Your task to perform on an android device: open app "Mercado Libre" Image 0: 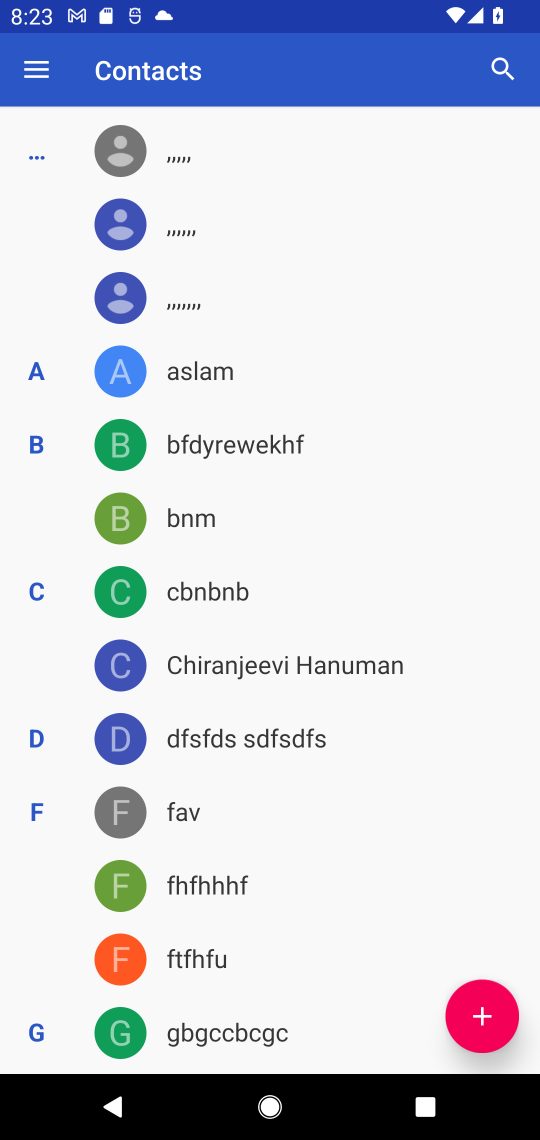
Step 0: press home button
Your task to perform on an android device: open app "Mercado Libre" Image 1: 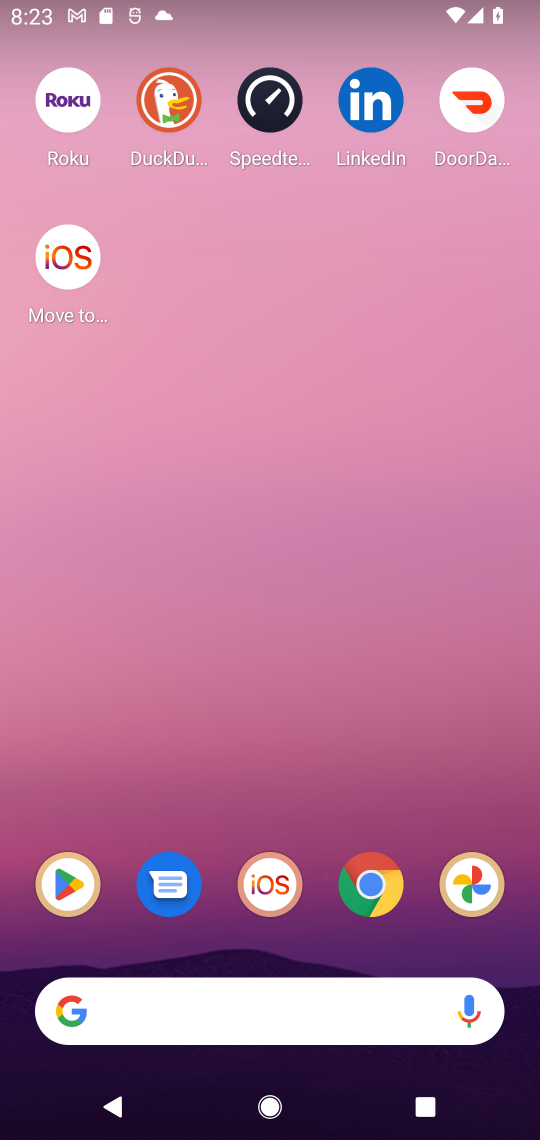
Step 1: click (68, 873)
Your task to perform on an android device: open app "Mercado Libre" Image 2: 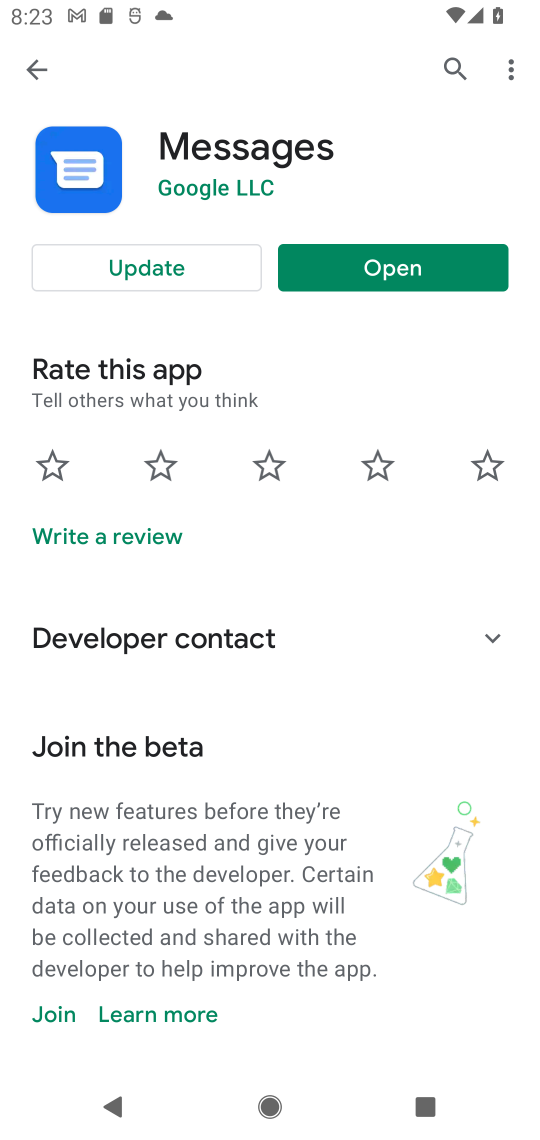
Step 2: click (505, 64)
Your task to perform on an android device: open app "Mercado Libre" Image 3: 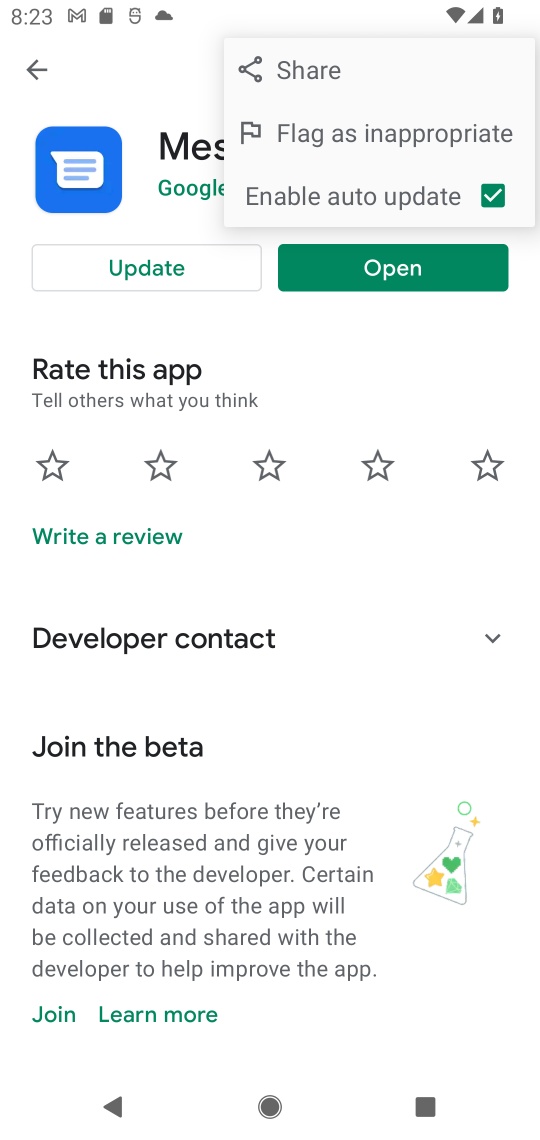
Step 3: click (37, 71)
Your task to perform on an android device: open app "Mercado Libre" Image 4: 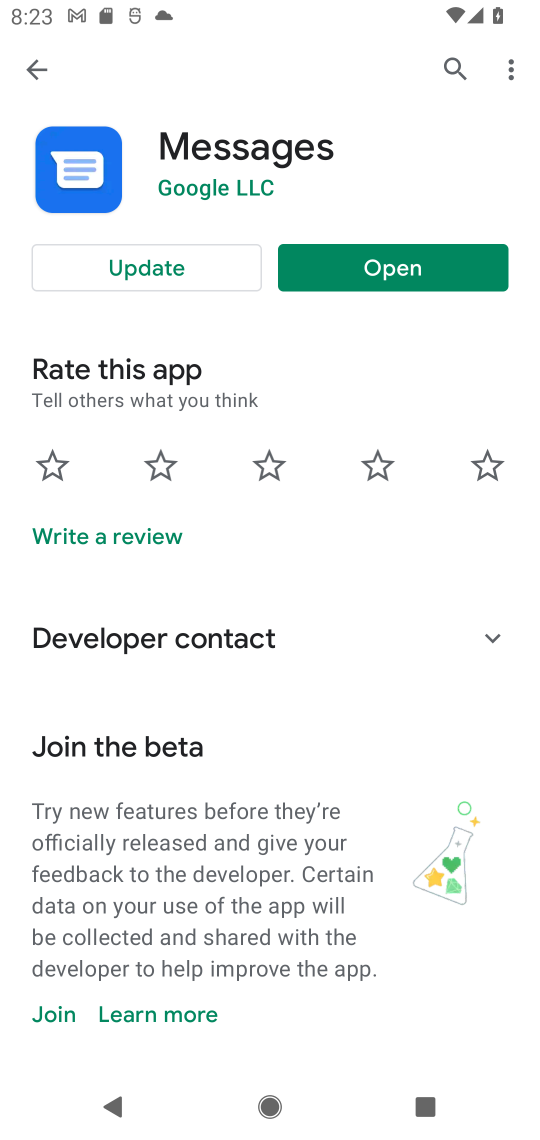
Step 4: click (459, 66)
Your task to perform on an android device: open app "Mercado Libre" Image 5: 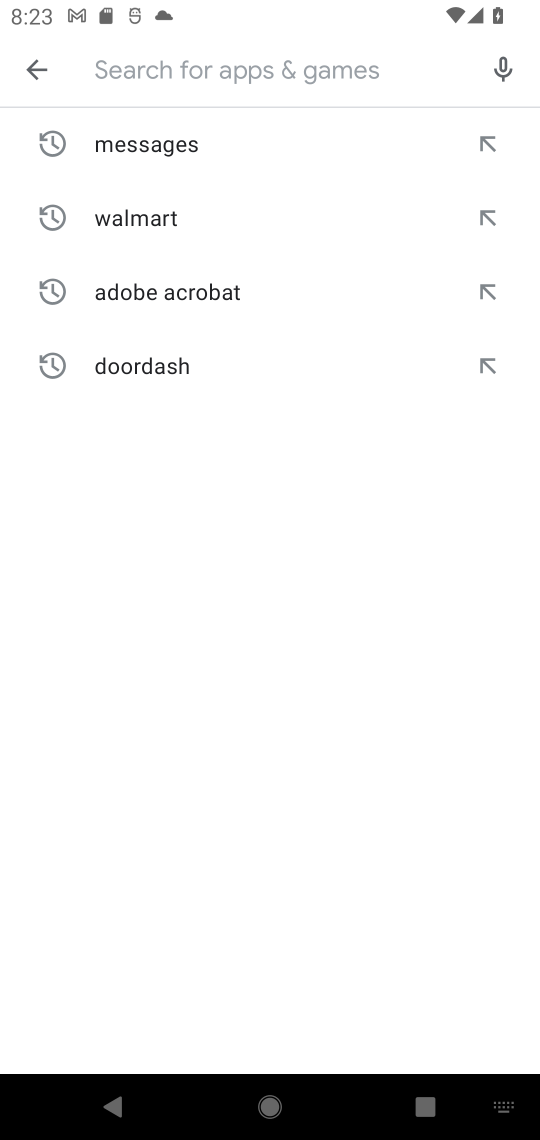
Step 5: type "mercado"
Your task to perform on an android device: open app "Mercado Libre" Image 6: 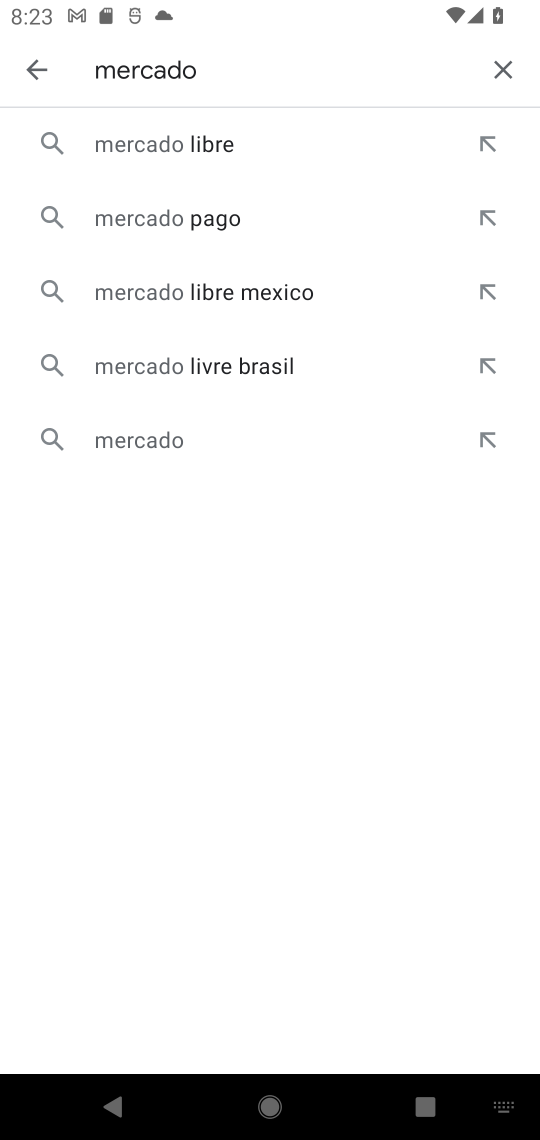
Step 6: click (233, 155)
Your task to perform on an android device: open app "Mercado Libre" Image 7: 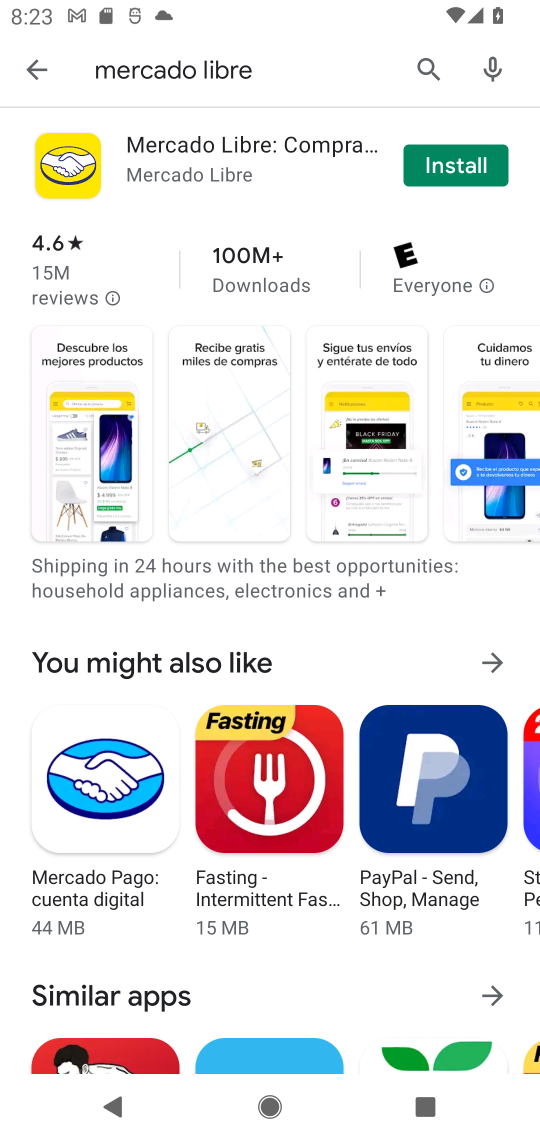
Step 7: click (421, 167)
Your task to perform on an android device: open app "Mercado Libre" Image 8: 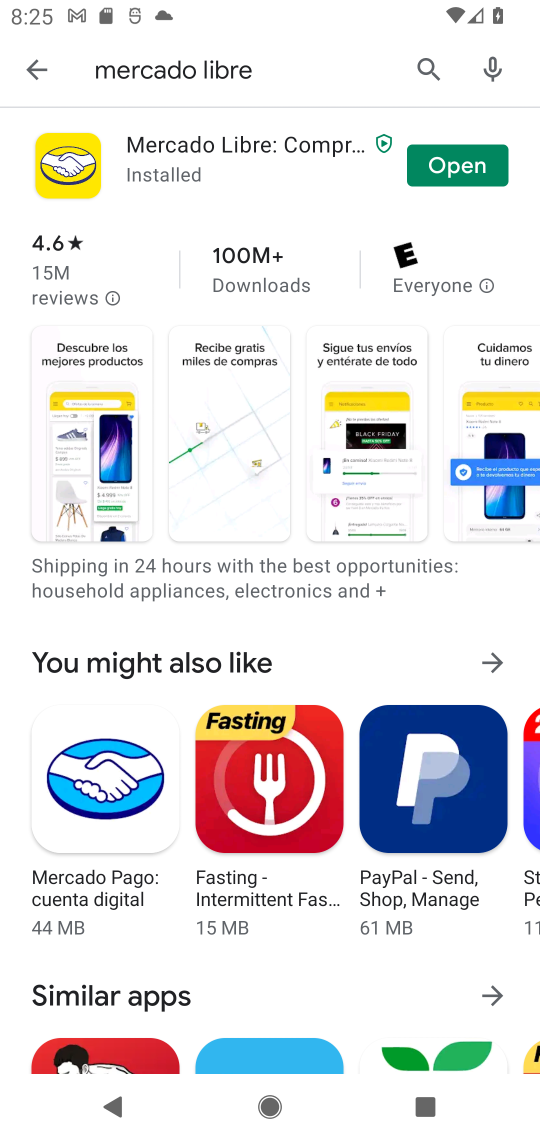
Step 8: task complete